Your task to perform on an android device: toggle wifi Image 0: 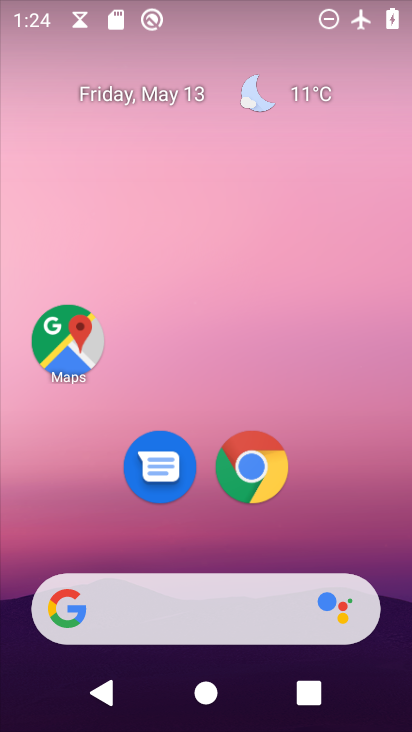
Step 0: drag from (338, 524) to (225, 55)
Your task to perform on an android device: toggle wifi Image 1: 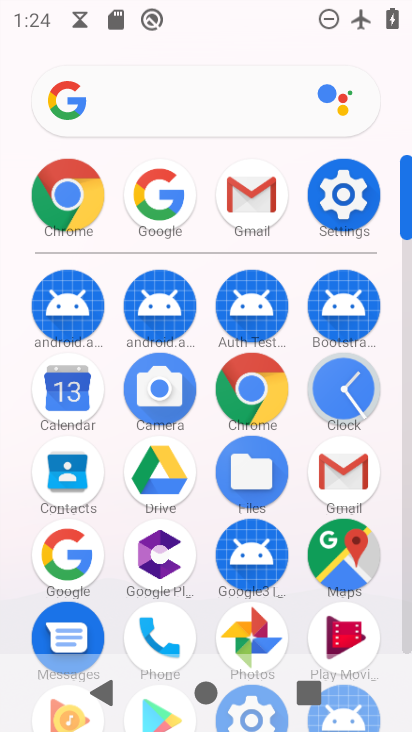
Step 1: click (345, 215)
Your task to perform on an android device: toggle wifi Image 2: 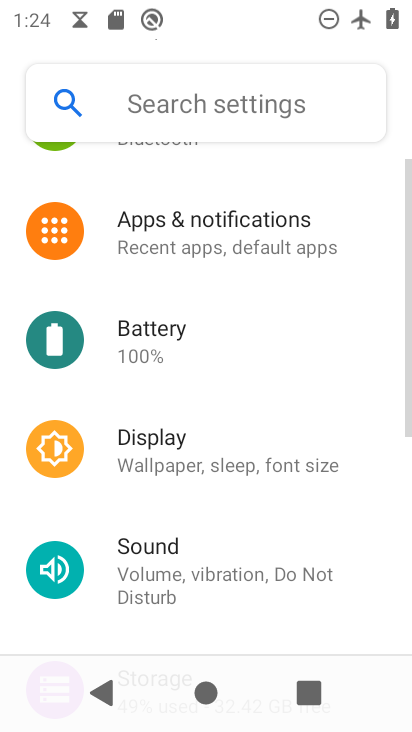
Step 2: drag from (259, 215) to (222, 669)
Your task to perform on an android device: toggle wifi Image 3: 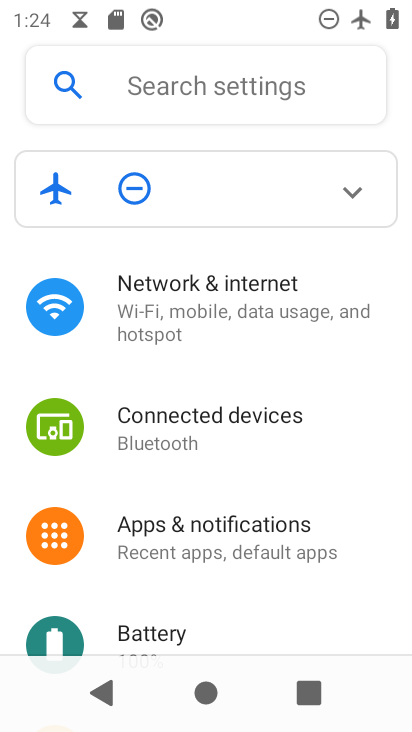
Step 3: click (220, 321)
Your task to perform on an android device: toggle wifi Image 4: 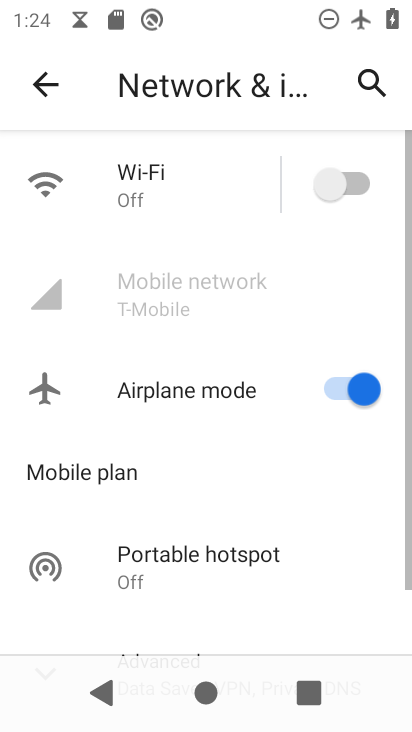
Step 4: click (351, 186)
Your task to perform on an android device: toggle wifi Image 5: 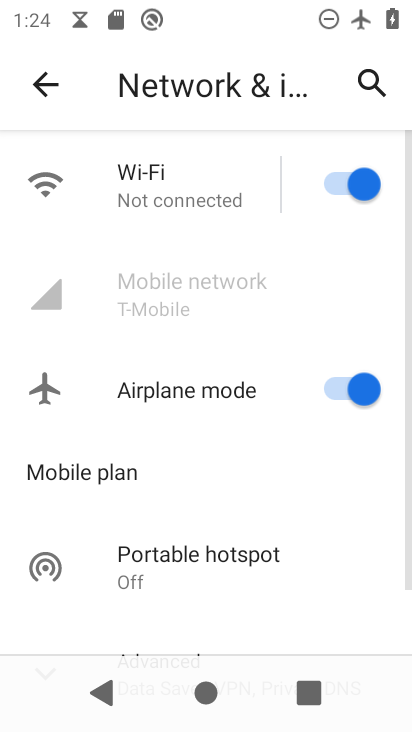
Step 5: task complete